Your task to perform on an android device: Open CNN.com Image 0: 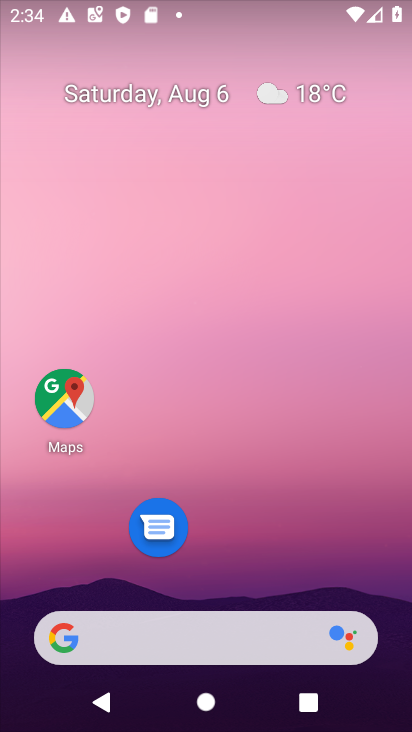
Step 0: drag from (218, 570) to (188, 60)
Your task to perform on an android device: Open CNN.com Image 1: 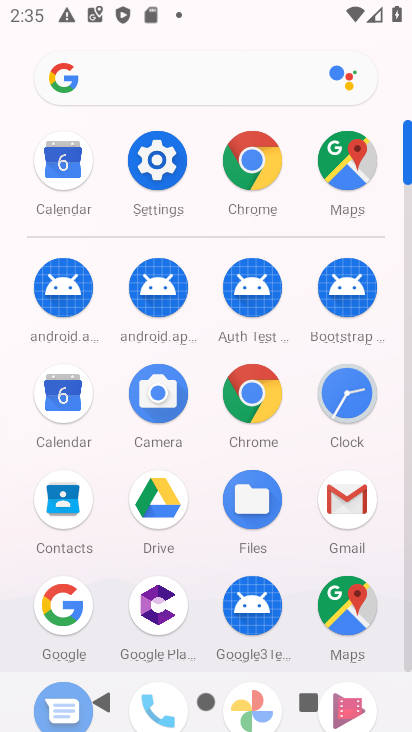
Step 1: click (252, 401)
Your task to perform on an android device: Open CNN.com Image 2: 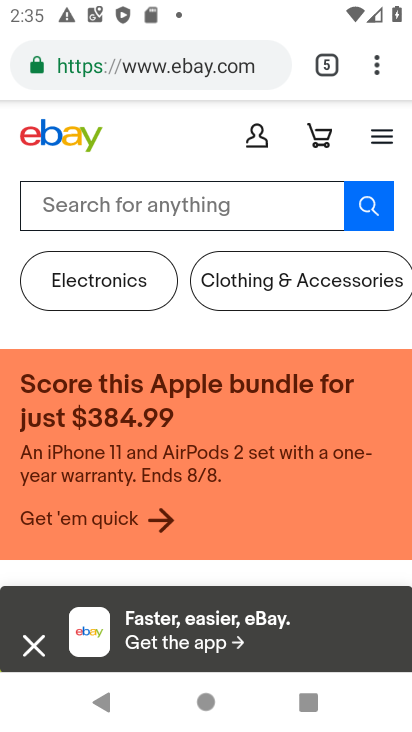
Step 2: click (319, 66)
Your task to perform on an android device: Open CNN.com Image 3: 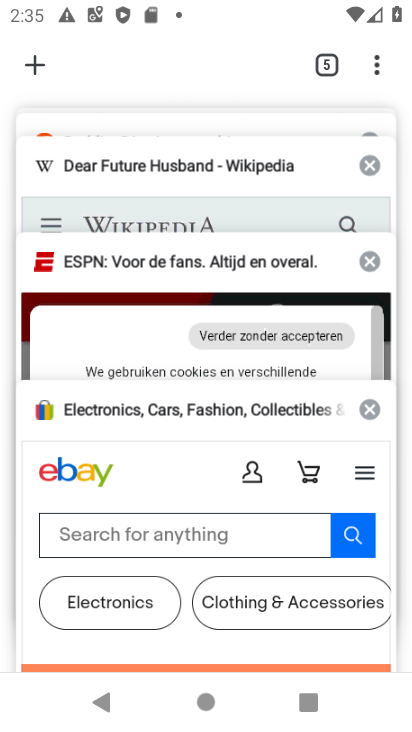
Step 3: drag from (213, 259) to (237, 619)
Your task to perform on an android device: Open CNN.com Image 4: 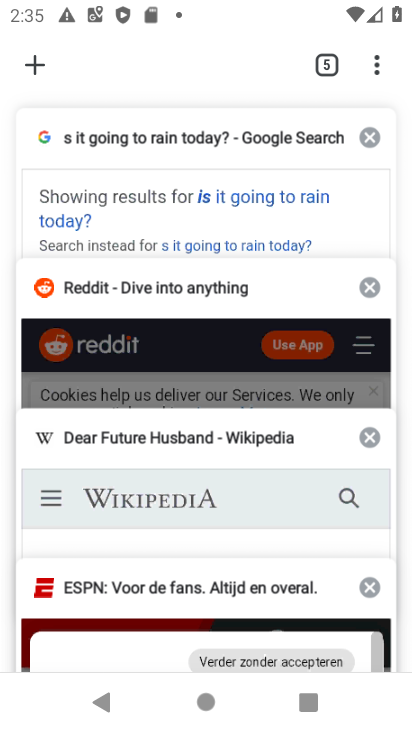
Step 4: drag from (180, 219) to (186, 595)
Your task to perform on an android device: Open CNN.com Image 5: 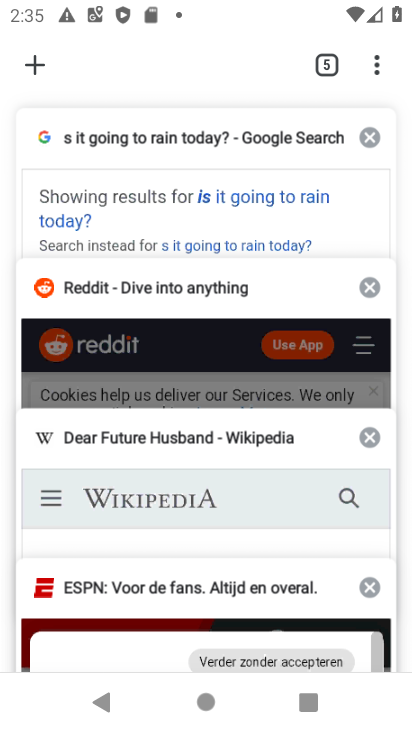
Step 5: click (41, 73)
Your task to perform on an android device: Open CNN.com Image 6: 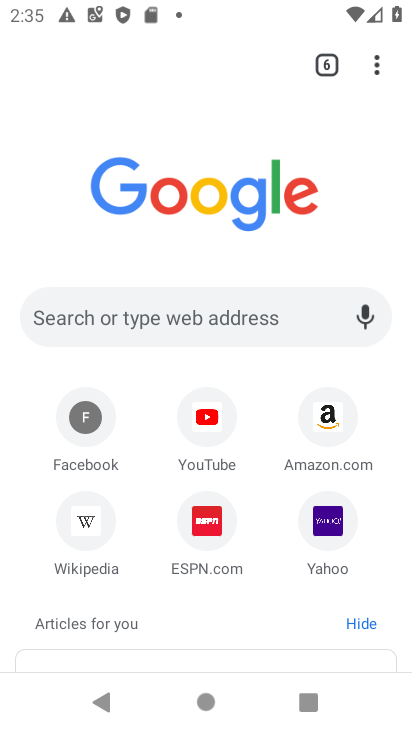
Step 6: click (159, 327)
Your task to perform on an android device: Open CNN.com Image 7: 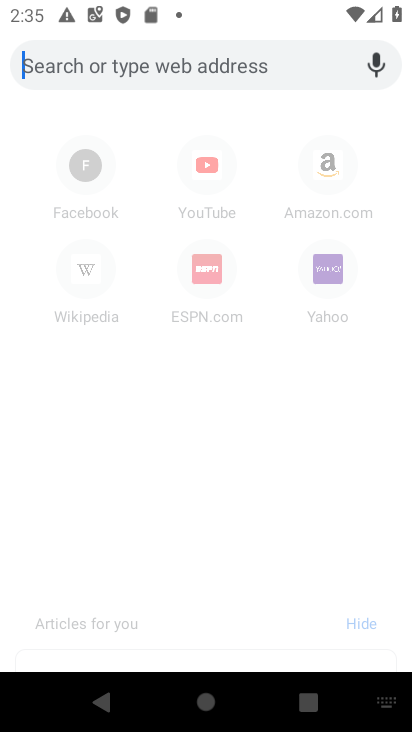
Step 7: type "CNN.com"
Your task to perform on an android device: Open CNN.com Image 8: 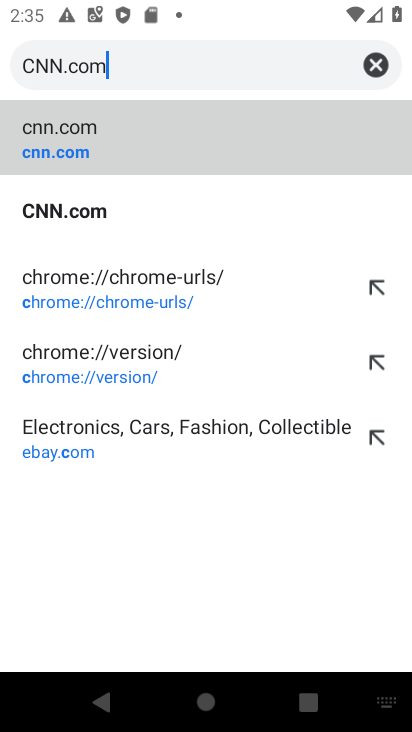
Step 8: type ""
Your task to perform on an android device: Open CNN.com Image 9: 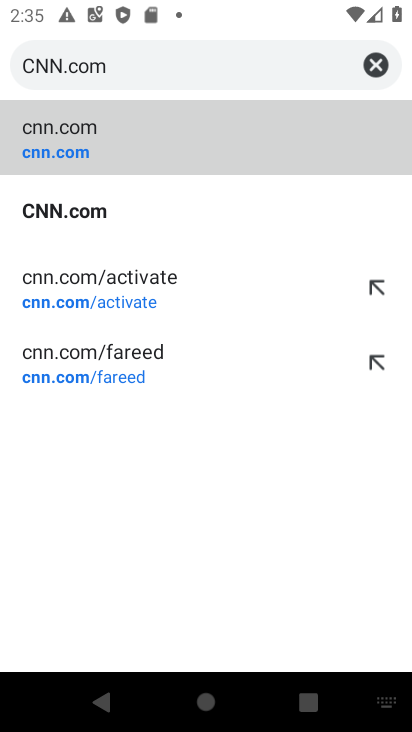
Step 9: click (144, 167)
Your task to perform on an android device: Open CNN.com Image 10: 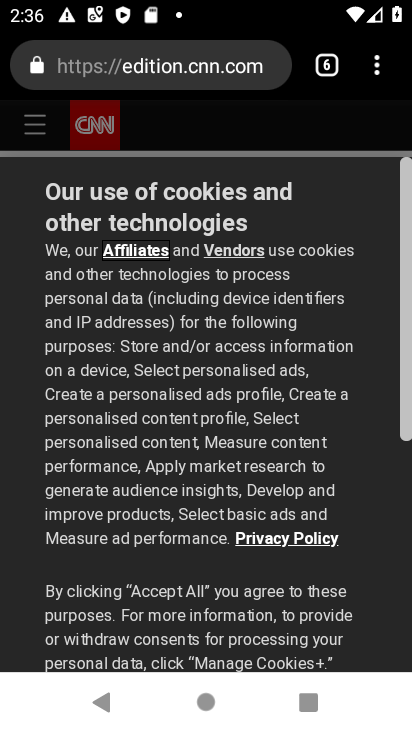
Step 10: task complete